Your task to perform on an android device: Open the map Image 0: 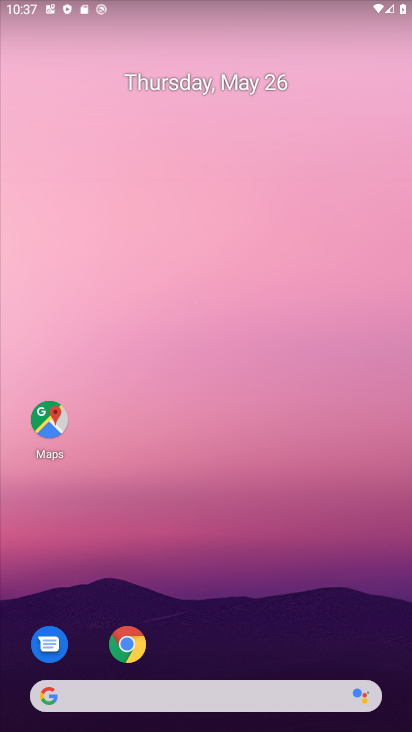
Step 0: drag from (366, 571) to (283, 57)
Your task to perform on an android device: Open the map Image 1: 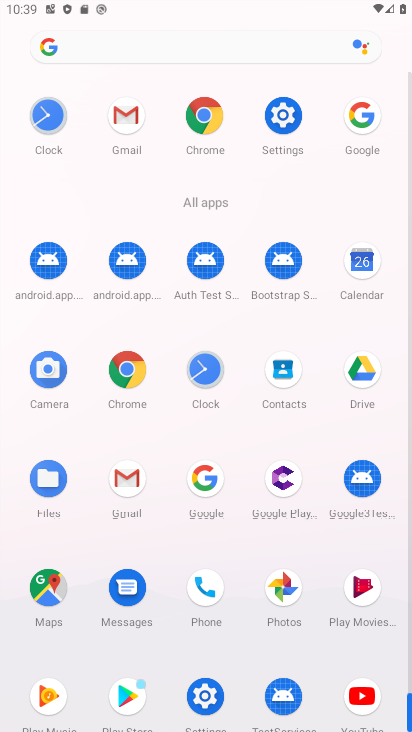
Step 1: click (56, 592)
Your task to perform on an android device: Open the map Image 2: 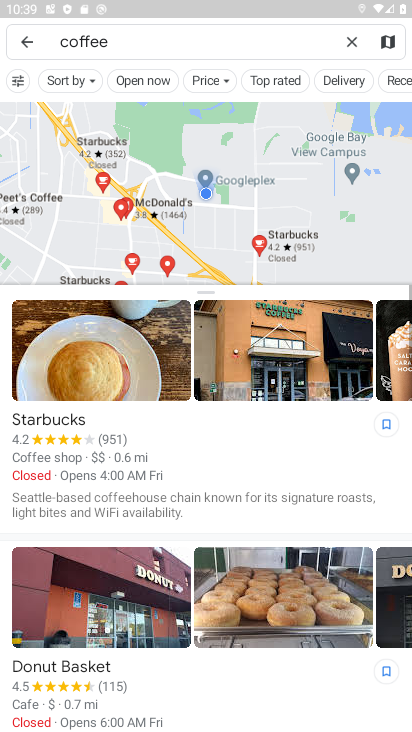
Step 2: click (354, 35)
Your task to perform on an android device: Open the map Image 3: 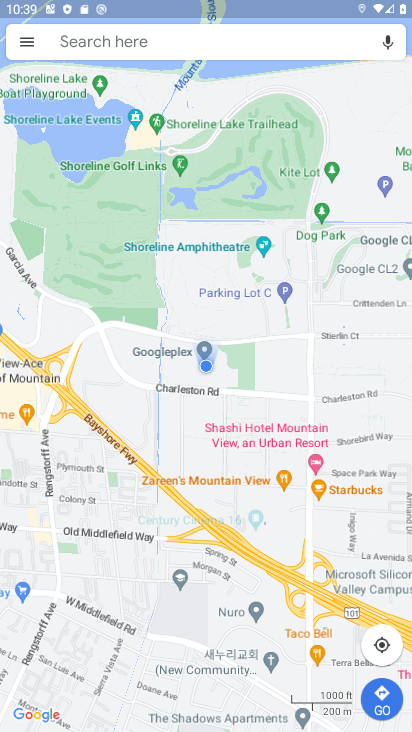
Step 3: task complete